Your task to perform on an android device: move an email to a new category in the gmail app Image 0: 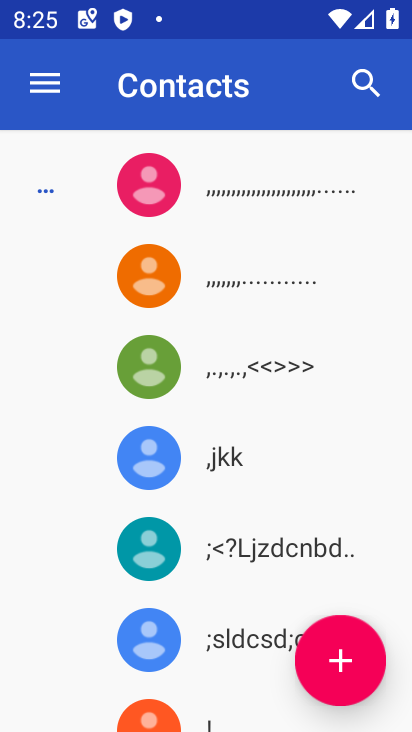
Step 0: press back button
Your task to perform on an android device: move an email to a new category in the gmail app Image 1: 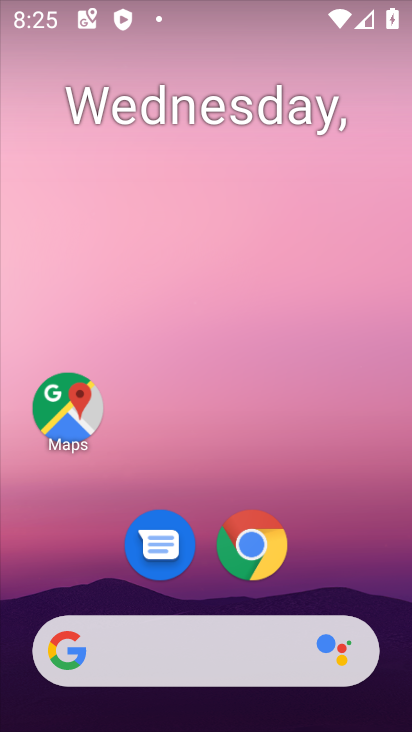
Step 1: drag from (168, 381) to (227, 24)
Your task to perform on an android device: move an email to a new category in the gmail app Image 2: 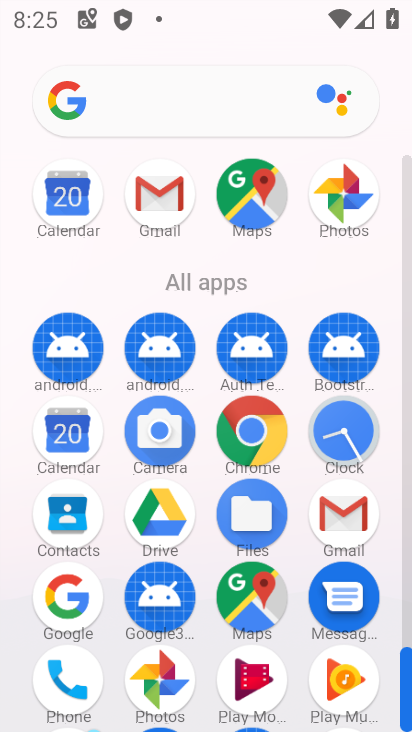
Step 2: click (156, 183)
Your task to perform on an android device: move an email to a new category in the gmail app Image 3: 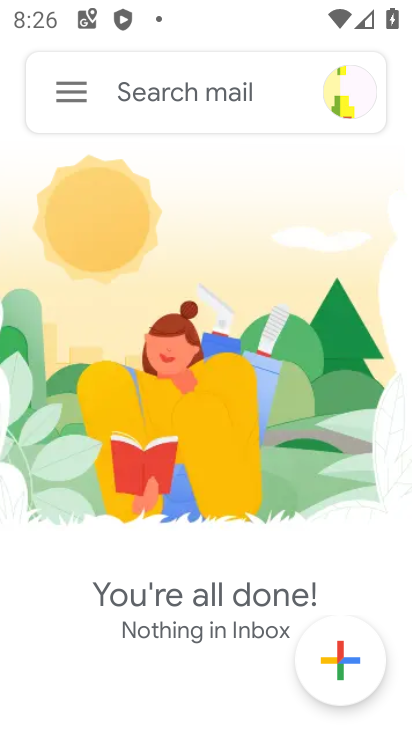
Step 3: click (75, 87)
Your task to perform on an android device: move an email to a new category in the gmail app Image 4: 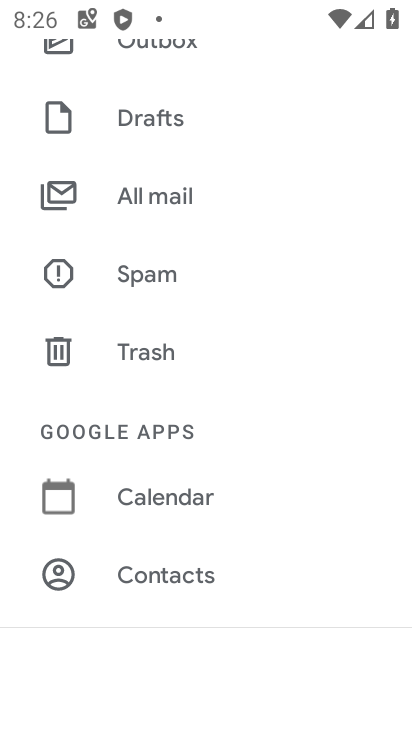
Step 4: drag from (200, 160) to (180, 636)
Your task to perform on an android device: move an email to a new category in the gmail app Image 5: 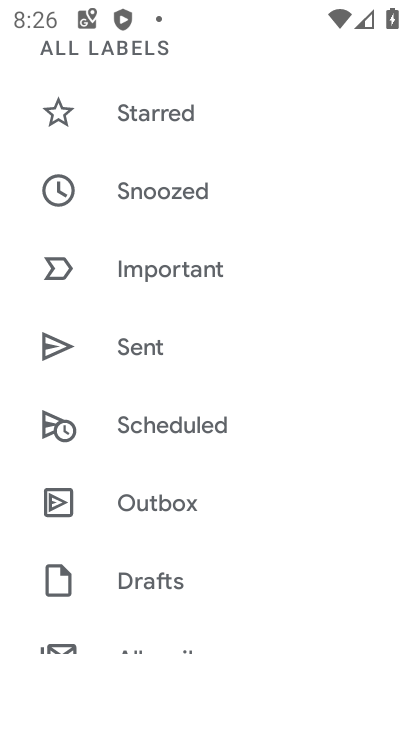
Step 5: drag from (173, 203) to (245, 88)
Your task to perform on an android device: move an email to a new category in the gmail app Image 6: 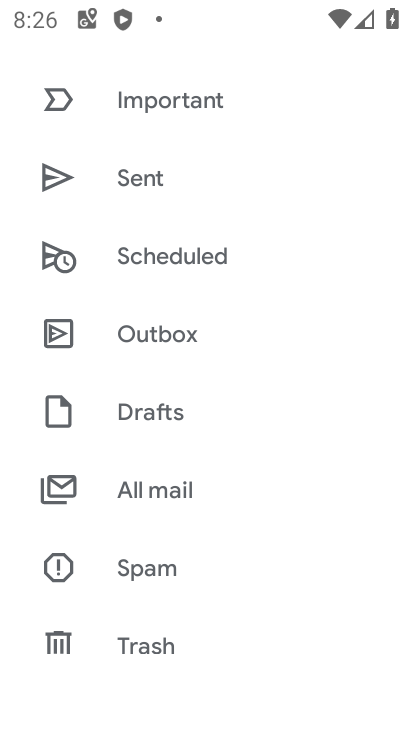
Step 6: drag from (216, 474) to (309, 66)
Your task to perform on an android device: move an email to a new category in the gmail app Image 7: 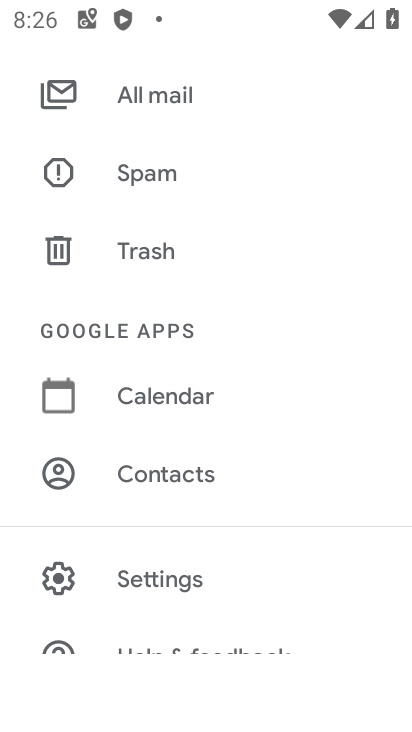
Step 7: click (181, 581)
Your task to perform on an android device: move an email to a new category in the gmail app Image 8: 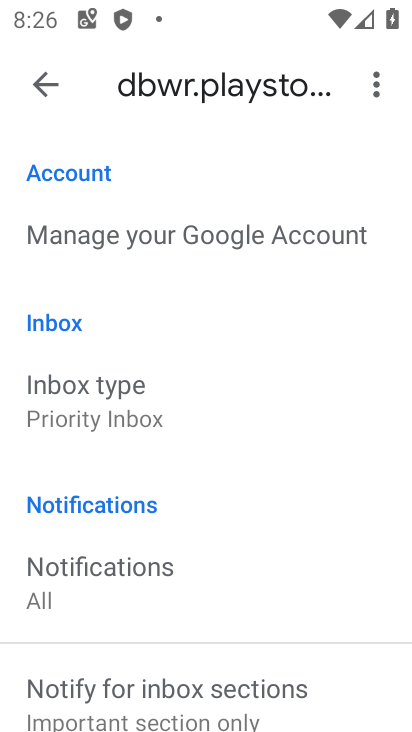
Step 8: click (57, 86)
Your task to perform on an android device: move an email to a new category in the gmail app Image 9: 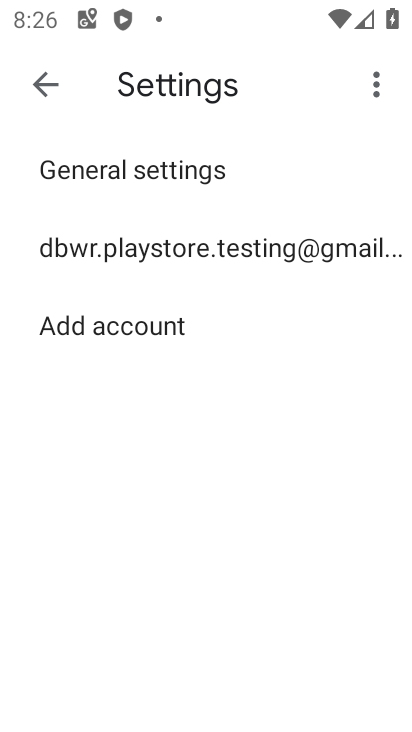
Step 9: click (38, 74)
Your task to perform on an android device: move an email to a new category in the gmail app Image 10: 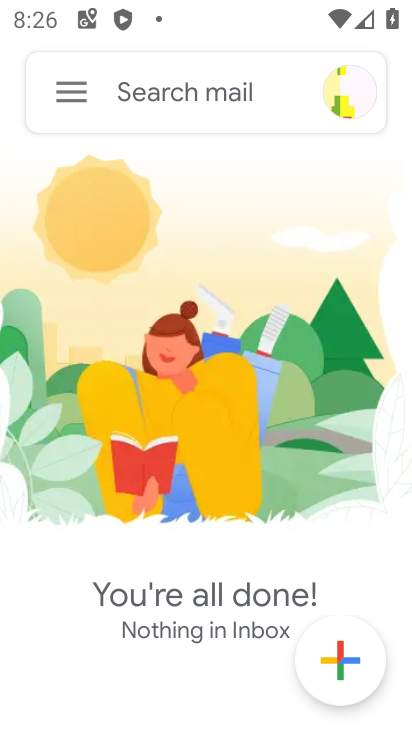
Step 10: click (75, 95)
Your task to perform on an android device: move an email to a new category in the gmail app Image 11: 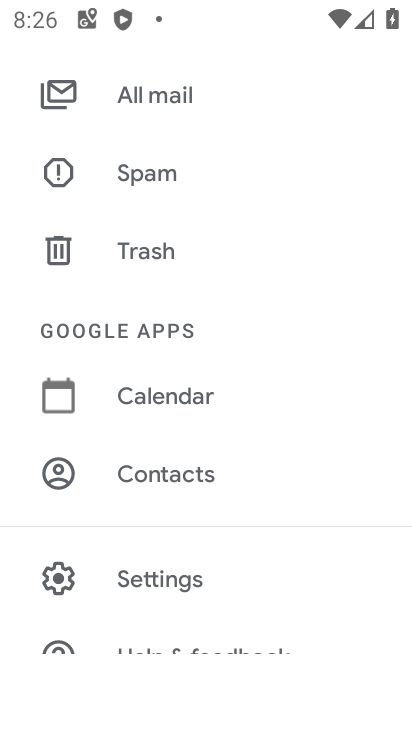
Step 11: drag from (213, 227) to (202, 723)
Your task to perform on an android device: move an email to a new category in the gmail app Image 12: 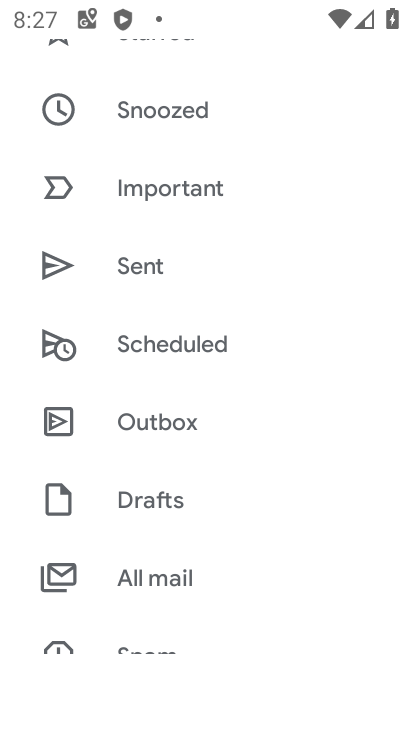
Step 12: click (158, 579)
Your task to perform on an android device: move an email to a new category in the gmail app Image 13: 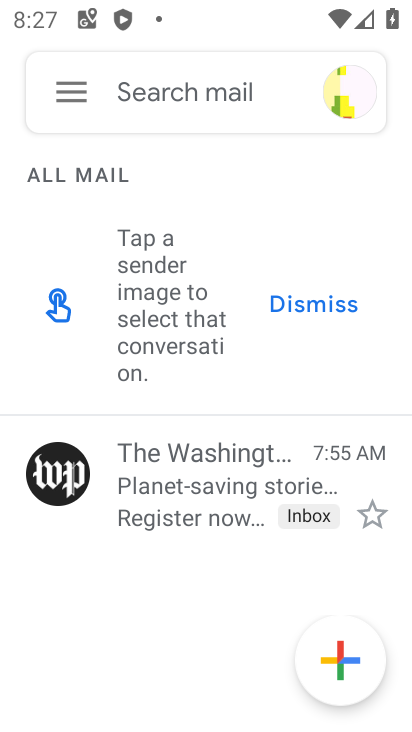
Step 13: click (146, 490)
Your task to perform on an android device: move an email to a new category in the gmail app Image 14: 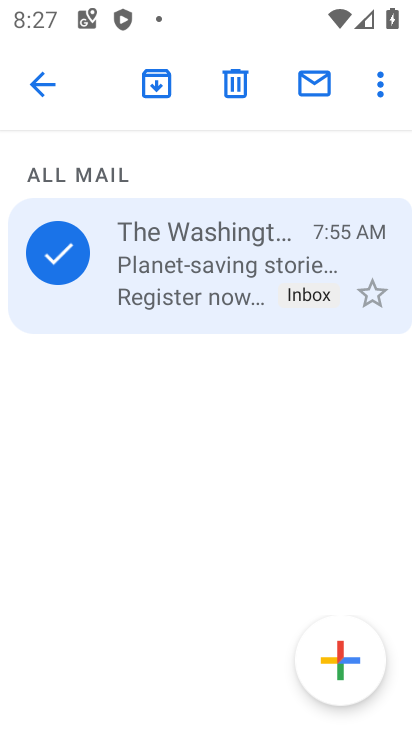
Step 14: click (376, 81)
Your task to perform on an android device: move an email to a new category in the gmail app Image 15: 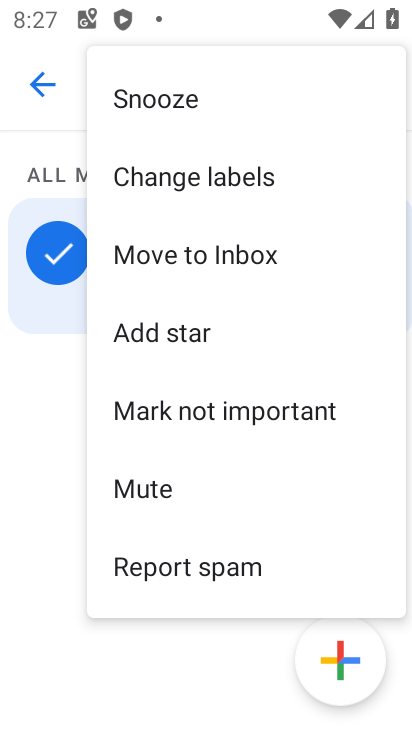
Step 15: click (195, 248)
Your task to perform on an android device: move an email to a new category in the gmail app Image 16: 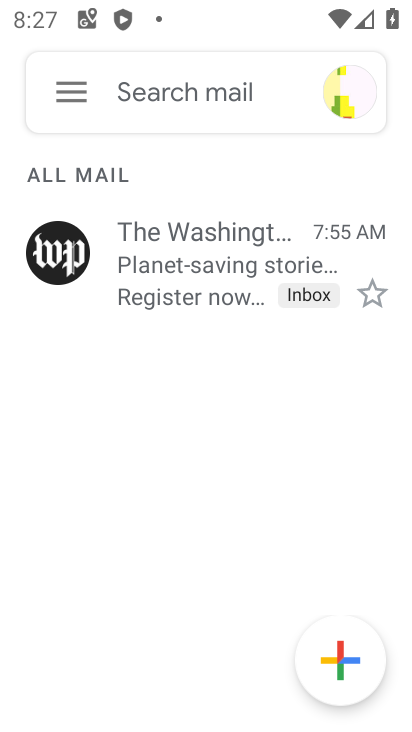
Step 16: task complete